Your task to perform on an android device: Open accessibility settings Image 0: 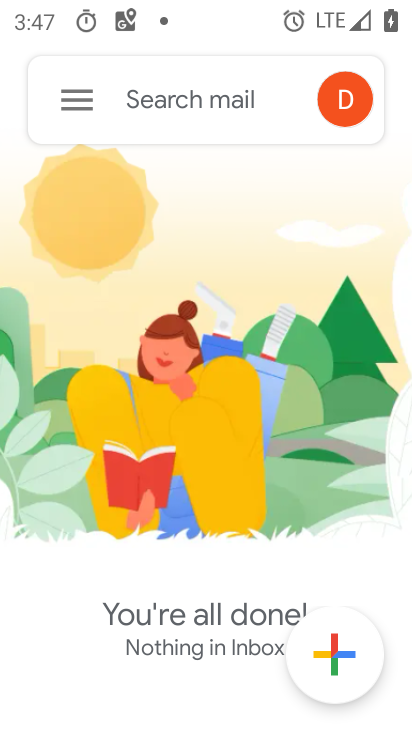
Step 0: press home button
Your task to perform on an android device: Open accessibility settings Image 1: 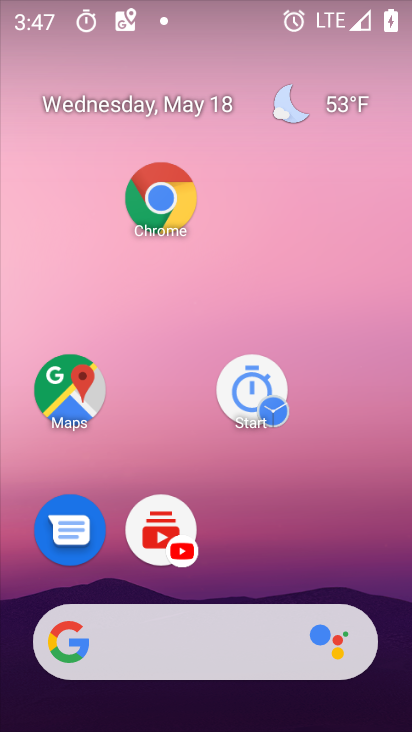
Step 1: press home button
Your task to perform on an android device: Open accessibility settings Image 2: 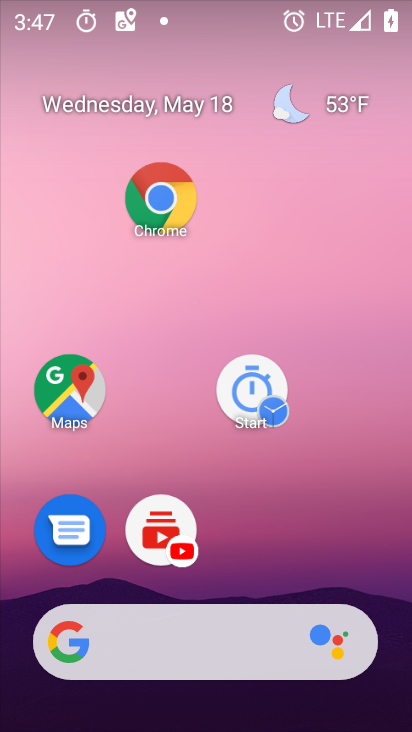
Step 2: press home button
Your task to perform on an android device: Open accessibility settings Image 3: 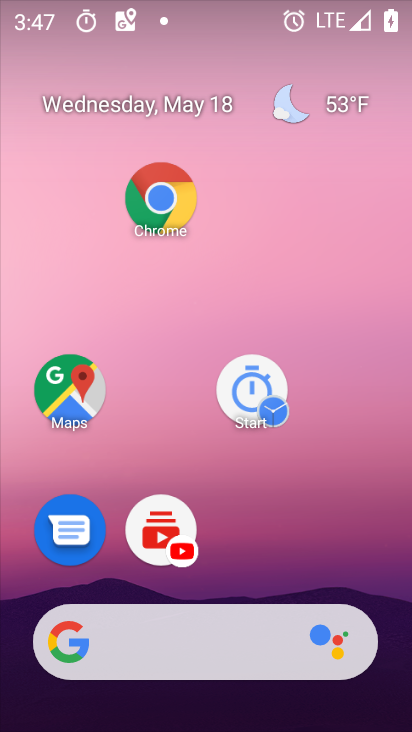
Step 3: drag from (305, 575) to (262, 202)
Your task to perform on an android device: Open accessibility settings Image 4: 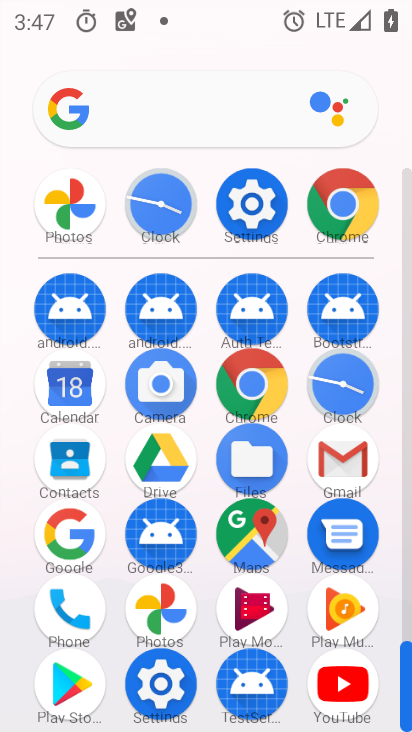
Step 4: click (300, 308)
Your task to perform on an android device: Open accessibility settings Image 5: 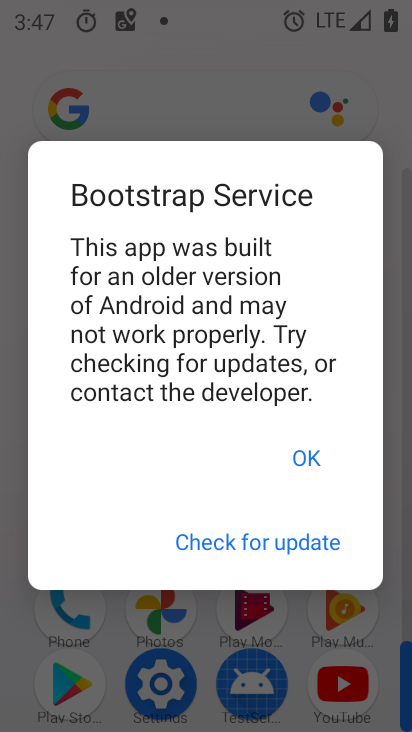
Step 5: drag from (310, 613) to (243, 131)
Your task to perform on an android device: Open accessibility settings Image 6: 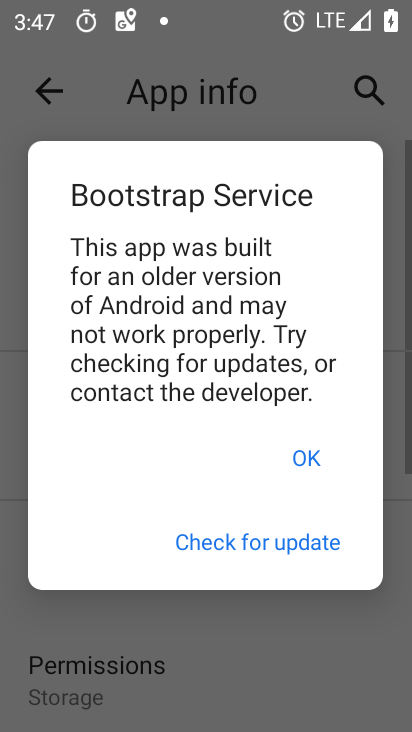
Step 6: click (208, 239)
Your task to perform on an android device: Open accessibility settings Image 7: 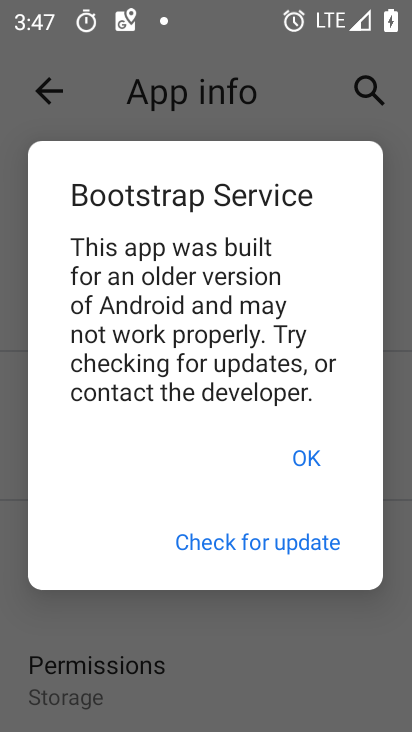
Step 7: click (252, 199)
Your task to perform on an android device: Open accessibility settings Image 8: 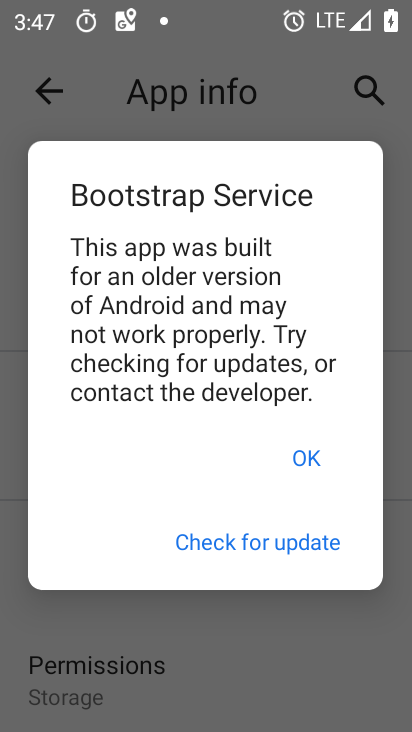
Step 8: click (291, 454)
Your task to perform on an android device: Open accessibility settings Image 9: 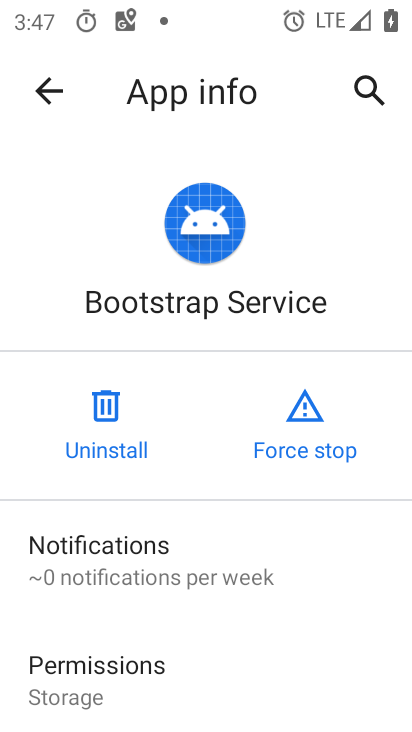
Step 9: click (303, 454)
Your task to perform on an android device: Open accessibility settings Image 10: 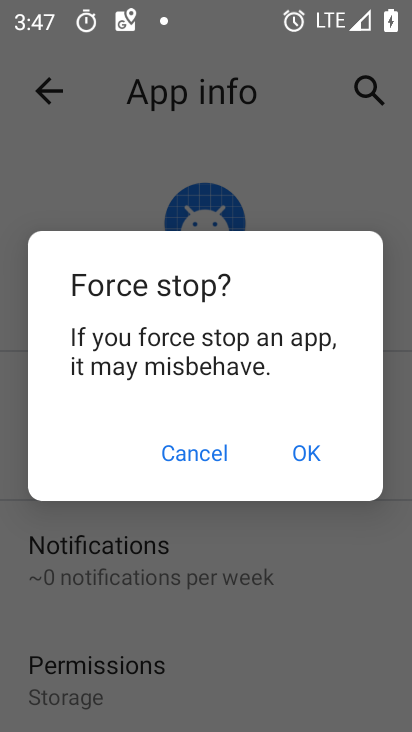
Step 10: task complete